Your task to perform on an android device: stop showing notifications on the lock screen Image 0: 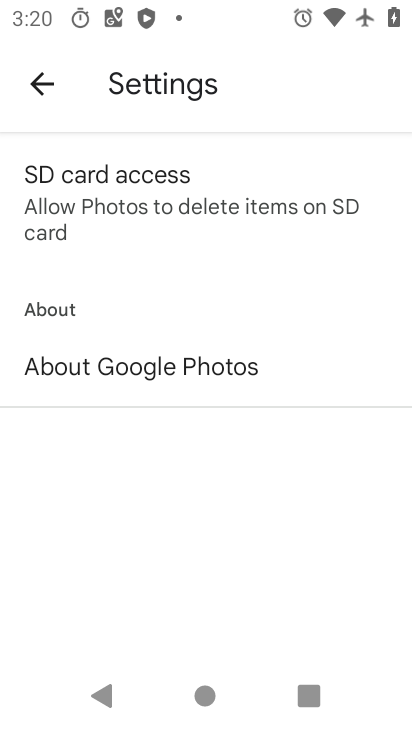
Step 0: press home button
Your task to perform on an android device: stop showing notifications on the lock screen Image 1: 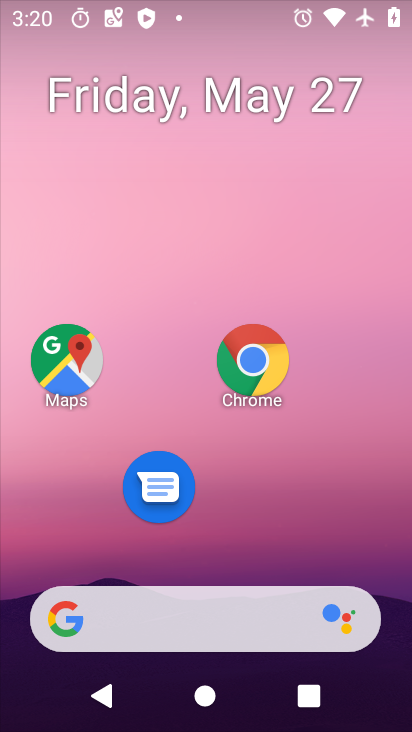
Step 1: click (362, 483)
Your task to perform on an android device: stop showing notifications on the lock screen Image 2: 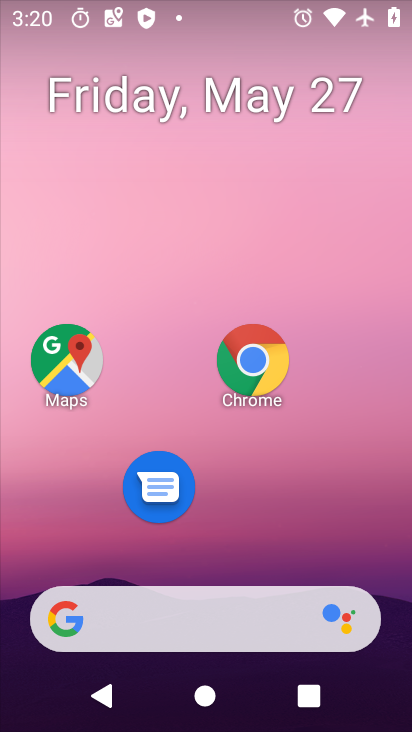
Step 2: drag from (328, 485) to (325, 116)
Your task to perform on an android device: stop showing notifications on the lock screen Image 3: 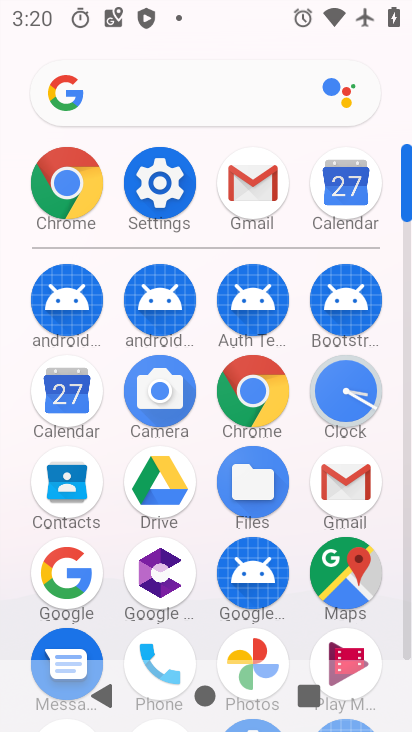
Step 3: click (153, 186)
Your task to perform on an android device: stop showing notifications on the lock screen Image 4: 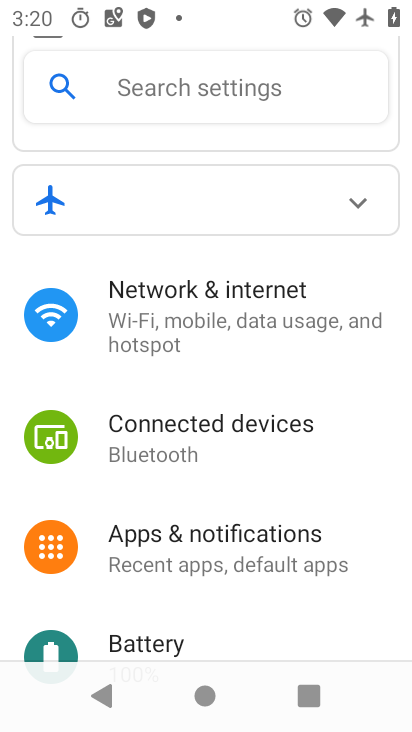
Step 4: click (222, 547)
Your task to perform on an android device: stop showing notifications on the lock screen Image 5: 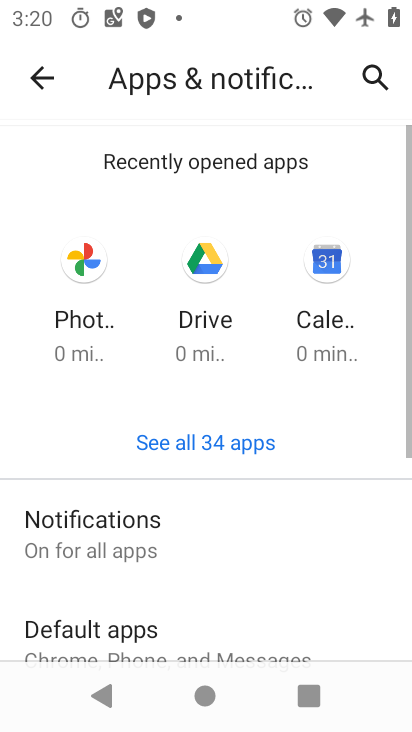
Step 5: drag from (222, 552) to (236, 308)
Your task to perform on an android device: stop showing notifications on the lock screen Image 6: 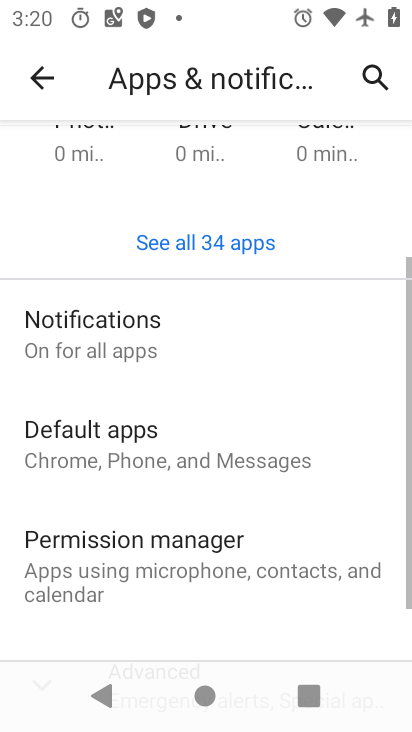
Step 6: click (171, 344)
Your task to perform on an android device: stop showing notifications on the lock screen Image 7: 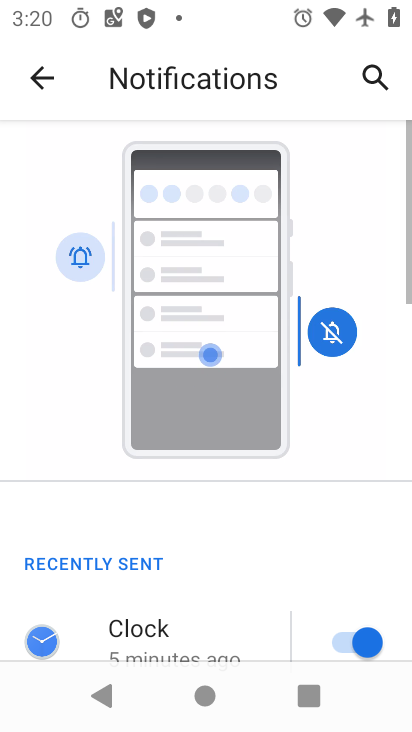
Step 7: drag from (256, 607) to (308, 50)
Your task to perform on an android device: stop showing notifications on the lock screen Image 8: 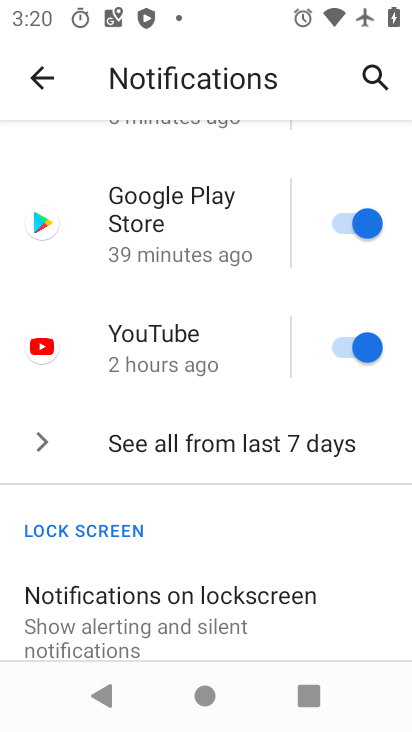
Step 8: click (177, 612)
Your task to perform on an android device: stop showing notifications on the lock screen Image 9: 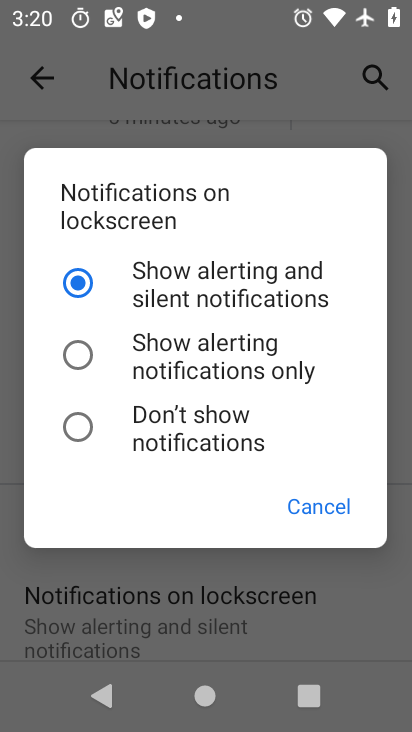
Step 9: click (77, 434)
Your task to perform on an android device: stop showing notifications on the lock screen Image 10: 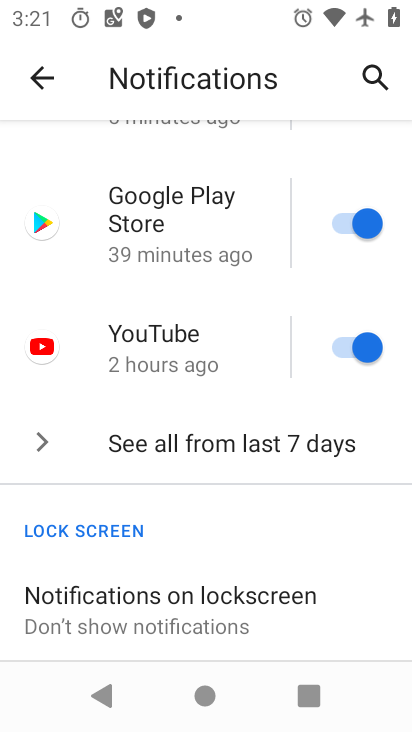
Step 10: task complete